Your task to perform on an android device: change notifications settings Image 0: 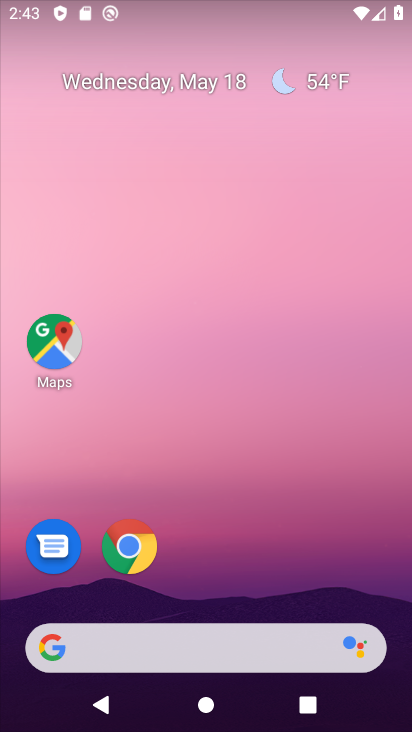
Step 0: drag from (210, 338) to (173, 39)
Your task to perform on an android device: change notifications settings Image 1: 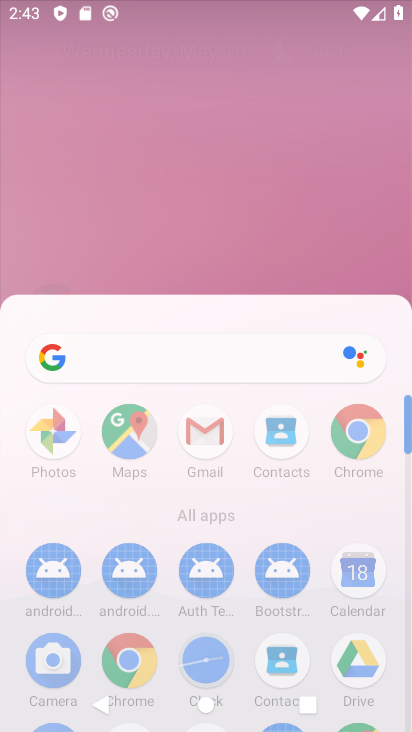
Step 1: drag from (223, 424) to (158, 70)
Your task to perform on an android device: change notifications settings Image 2: 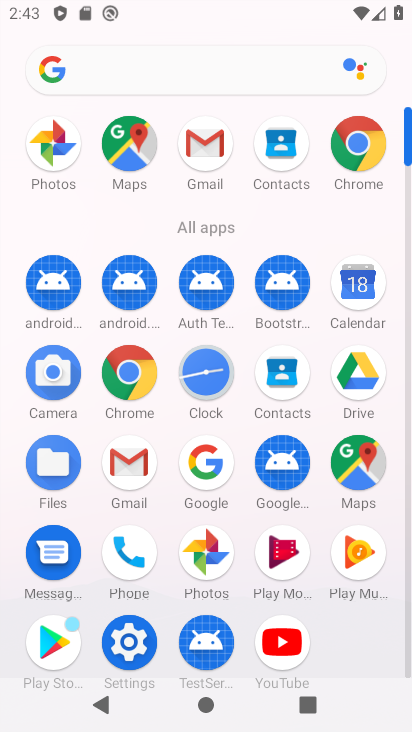
Step 2: drag from (236, 359) to (236, 98)
Your task to perform on an android device: change notifications settings Image 3: 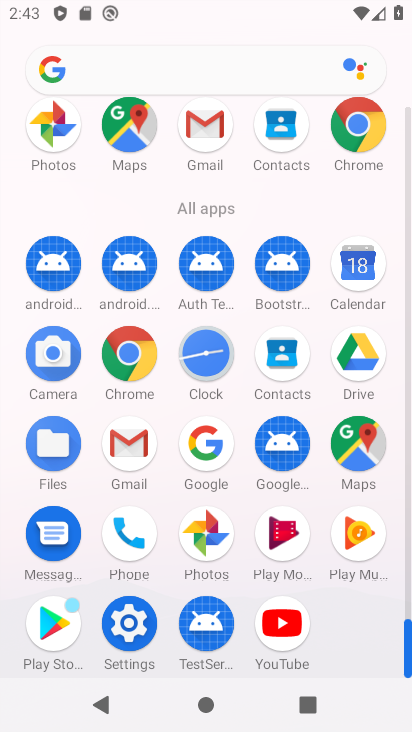
Step 3: click (128, 622)
Your task to perform on an android device: change notifications settings Image 4: 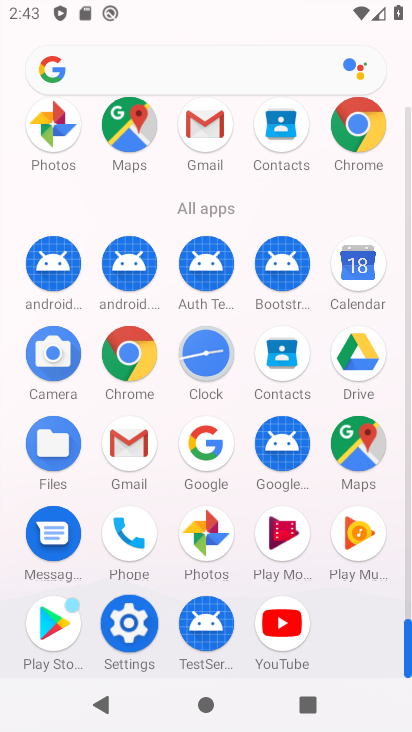
Step 4: click (128, 622)
Your task to perform on an android device: change notifications settings Image 5: 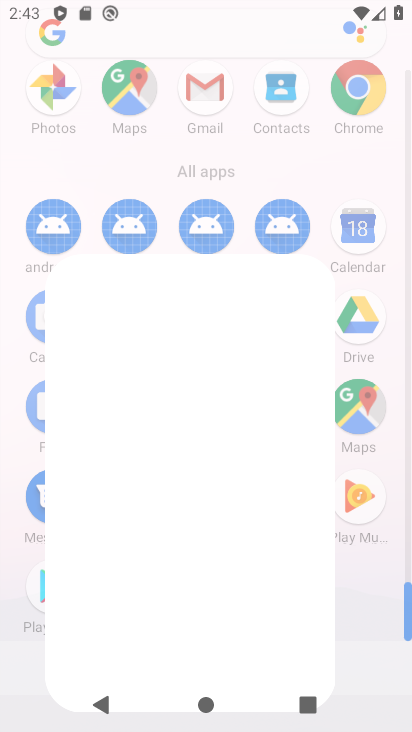
Step 5: click (128, 622)
Your task to perform on an android device: change notifications settings Image 6: 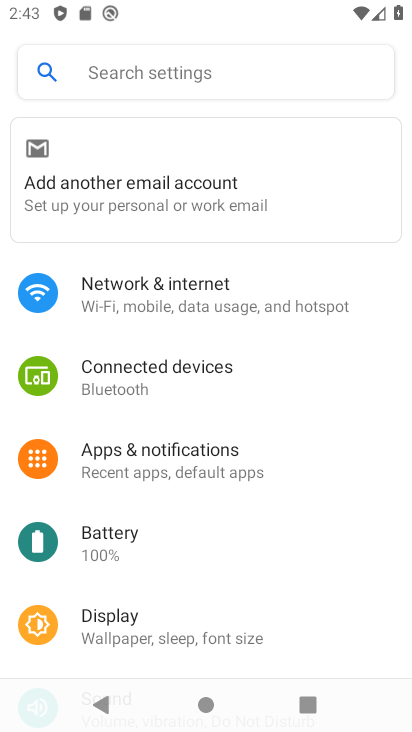
Step 6: click (164, 467)
Your task to perform on an android device: change notifications settings Image 7: 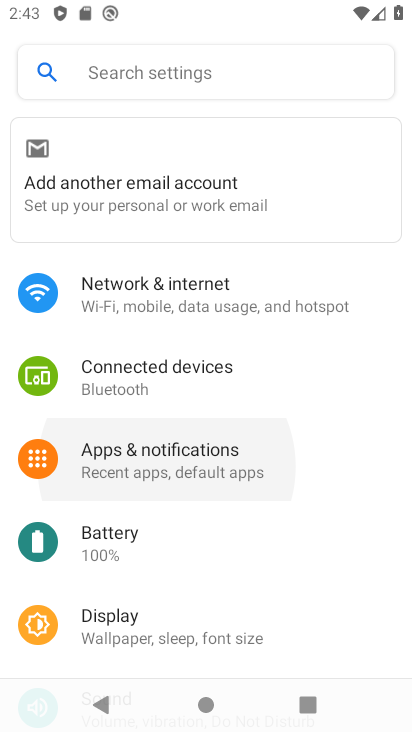
Step 7: click (165, 466)
Your task to perform on an android device: change notifications settings Image 8: 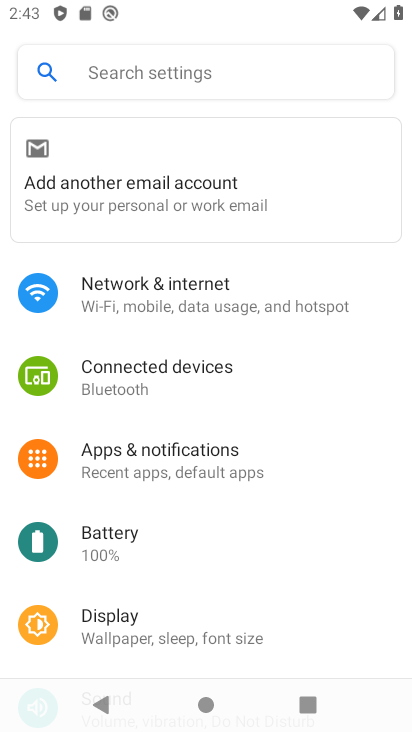
Step 8: click (165, 466)
Your task to perform on an android device: change notifications settings Image 9: 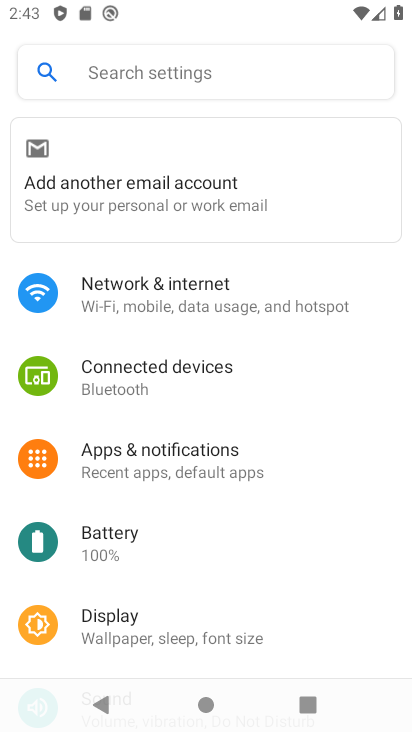
Step 9: click (176, 450)
Your task to perform on an android device: change notifications settings Image 10: 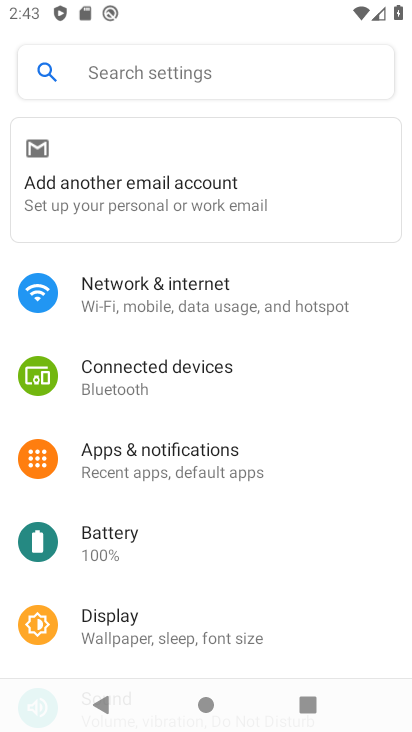
Step 10: click (179, 449)
Your task to perform on an android device: change notifications settings Image 11: 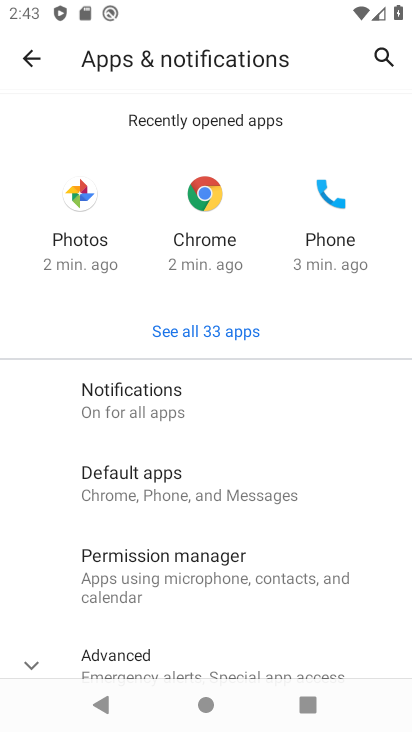
Step 11: click (121, 400)
Your task to perform on an android device: change notifications settings Image 12: 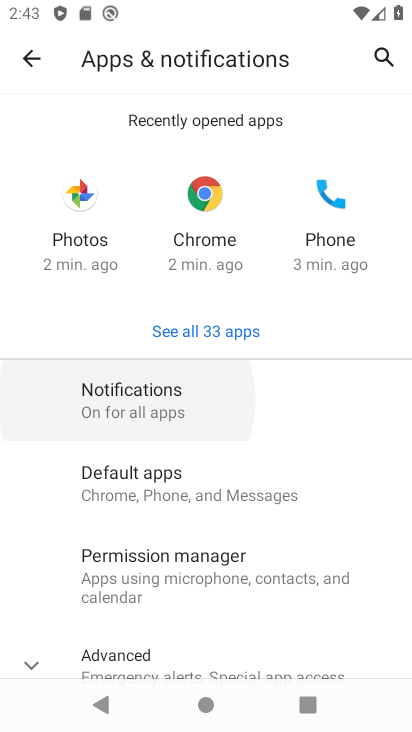
Step 12: click (121, 400)
Your task to perform on an android device: change notifications settings Image 13: 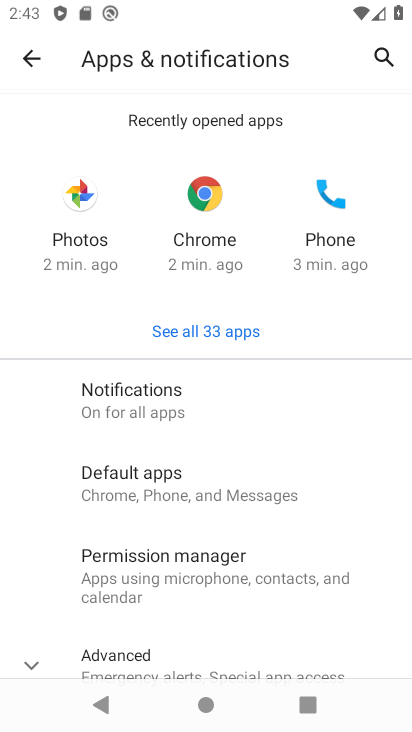
Step 13: click (124, 401)
Your task to perform on an android device: change notifications settings Image 14: 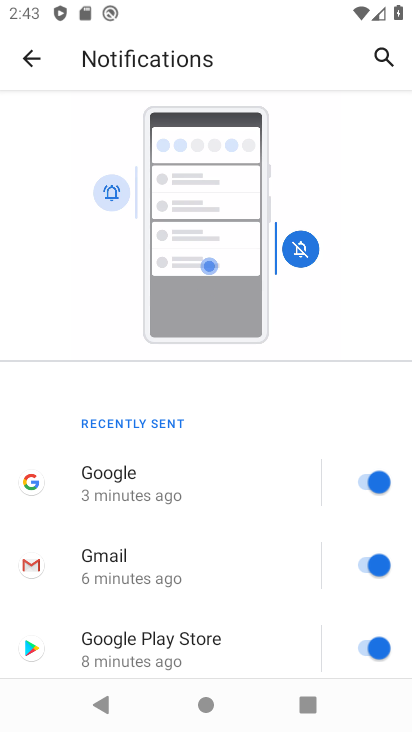
Step 14: click (372, 483)
Your task to perform on an android device: change notifications settings Image 15: 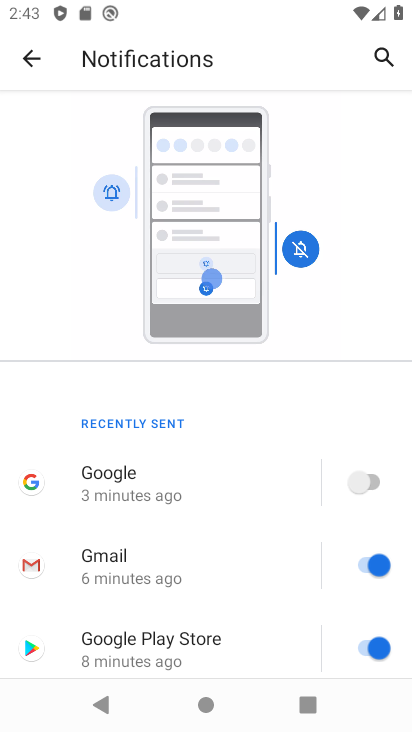
Step 15: click (372, 564)
Your task to perform on an android device: change notifications settings Image 16: 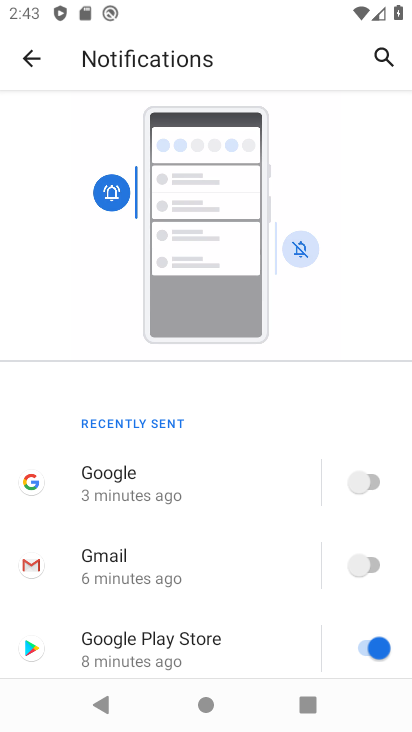
Step 16: click (371, 639)
Your task to perform on an android device: change notifications settings Image 17: 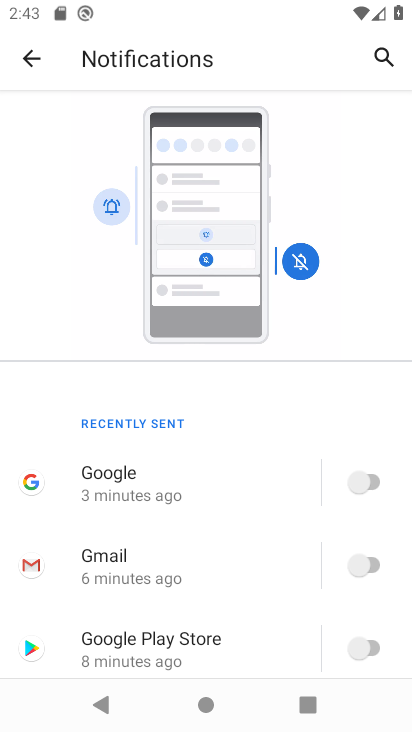
Step 17: task complete